Your task to perform on an android device: open sync settings in chrome Image 0: 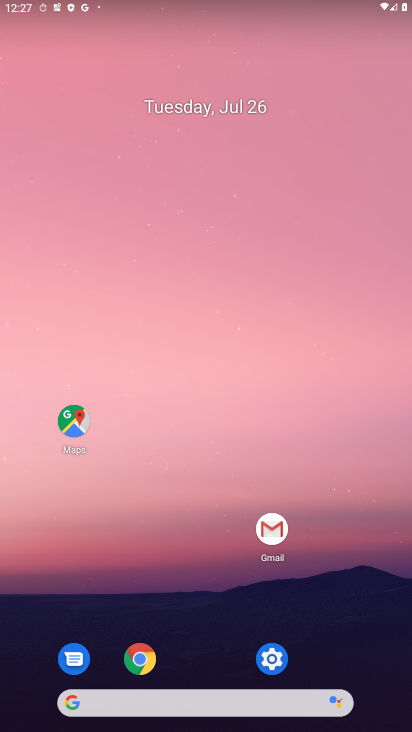
Step 0: click (136, 659)
Your task to perform on an android device: open sync settings in chrome Image 1: 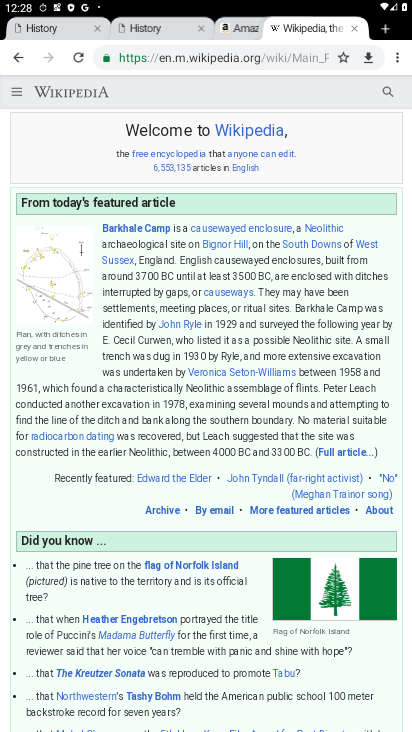
Step 1: click (391, 65)
Your task to perform on an android device: open sync settings in chrome Image 2: 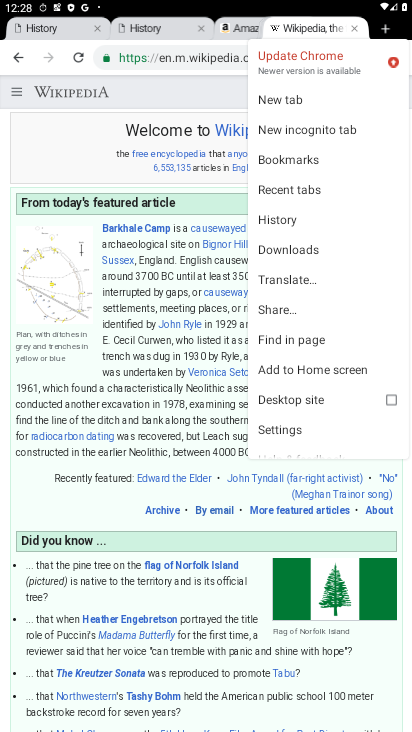
Step 2: click (296, 433)
Your task to perform on an android device: open sync settings in chrome Image 3: 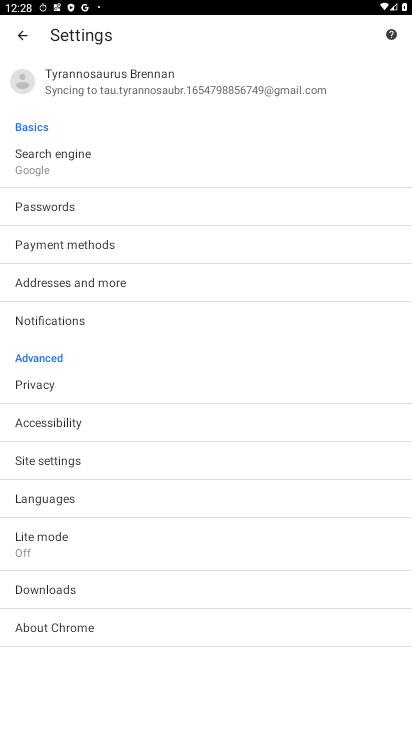
Step 3: click (50, 464)
Your task to perform on an android device: open sync settings in chrome Image 4: 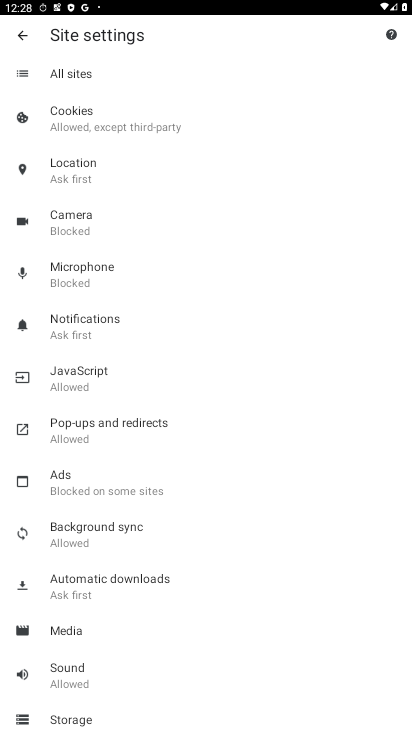
Step 4: click (113, 532)
Your task to perform on an android device: open sync settings in chrome Image 5: 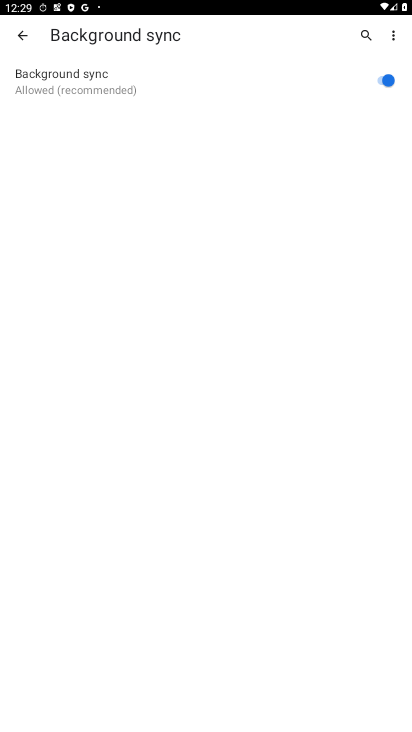
Step 5: task complete